Your task to perform on an android device: Do I have any events today? Image 0: 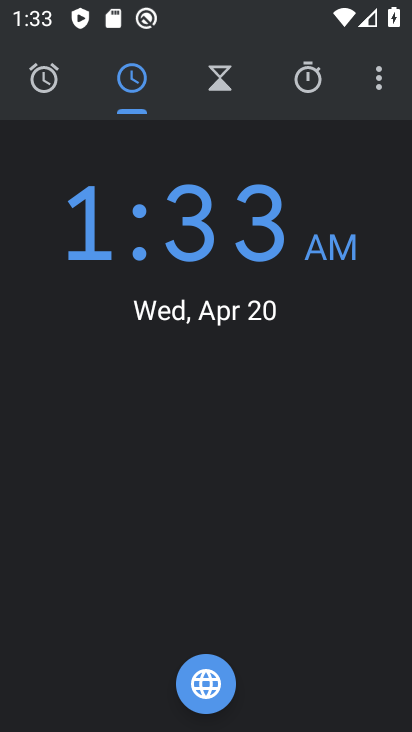
Step 0: press home button
Your task to perform on an android device: Do I have any events today? Image 1: 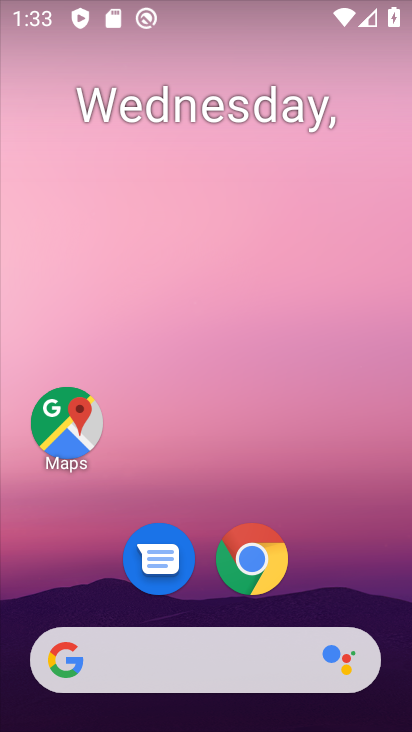
Step 1: drag from (212, 382) to (260, 5)
Your task to perform on an android device: Do I have any events today? Image 2: 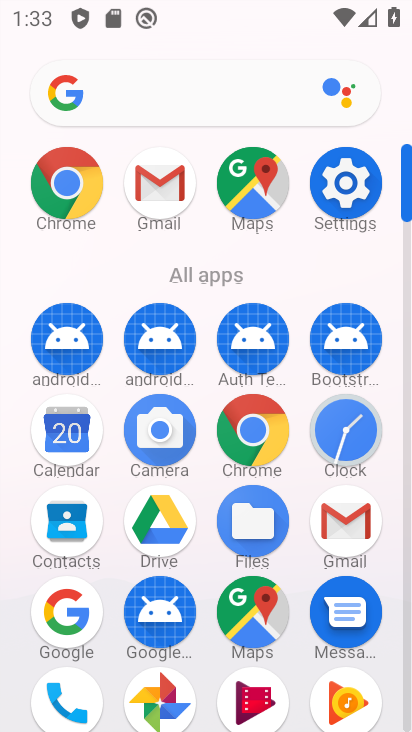
Step 2: click (69, 456)
Your task to perform on an android device: Do I have any events today? Image 3: 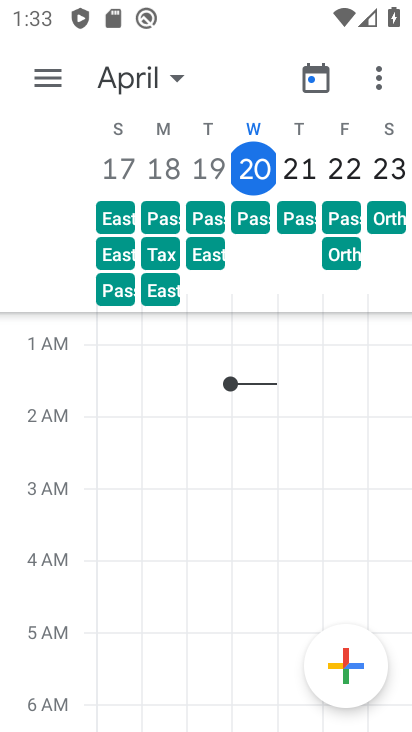
Step 3: click (243, 384)
Your task to perform on an android device: Do I have any events today? Image 4: 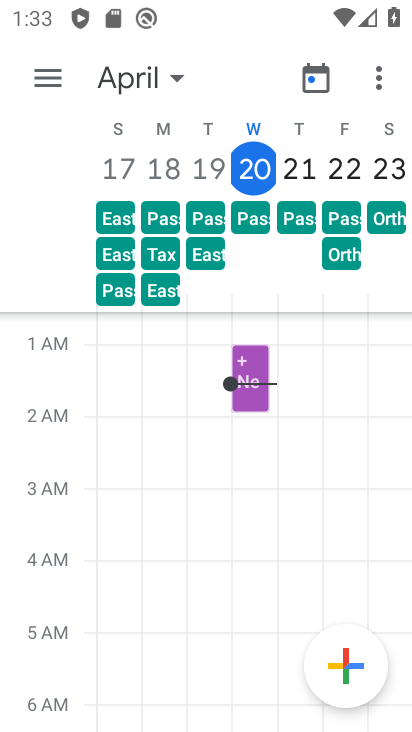
Step 4: task complete